Your task to perform on an android device: toggle pop-ups in chrome Image 0: 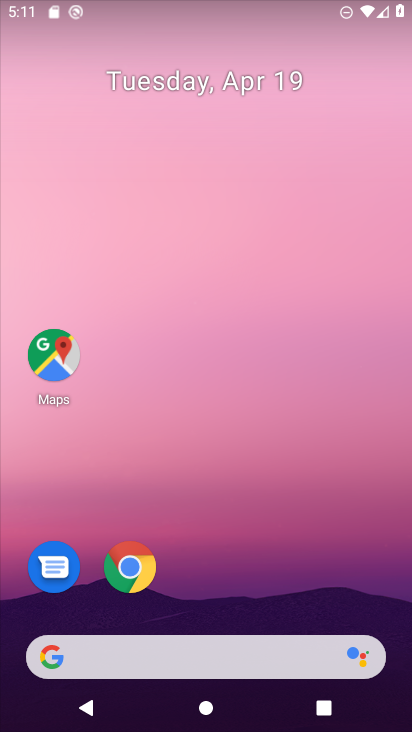
Step 0: drag from (323, 536) to (273, 60)
Your task to perform on an android device: toggle pop-ups in chrome Image 1: 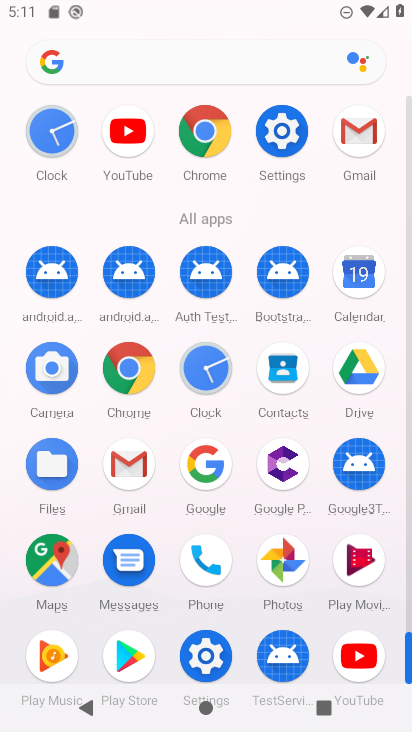
Step 1: click (206, 128)
Your task to perform on an android device: toggle pop-ups in chrome Image 2: 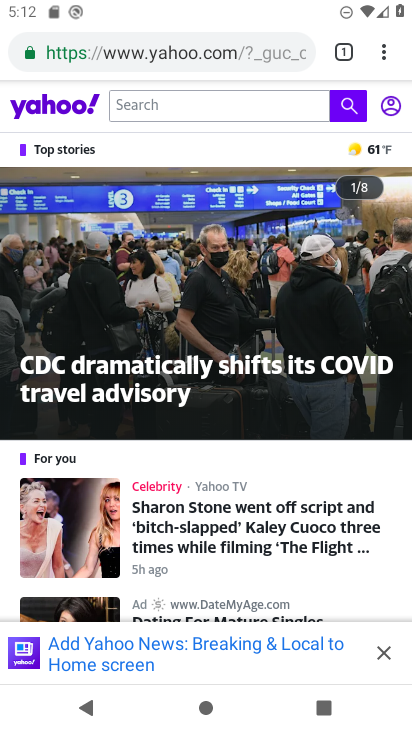
Step 2: drag from (380, 55) to (219, 616)
Your task to perform on an android device: toggle pop-ups in chrome Image 3: 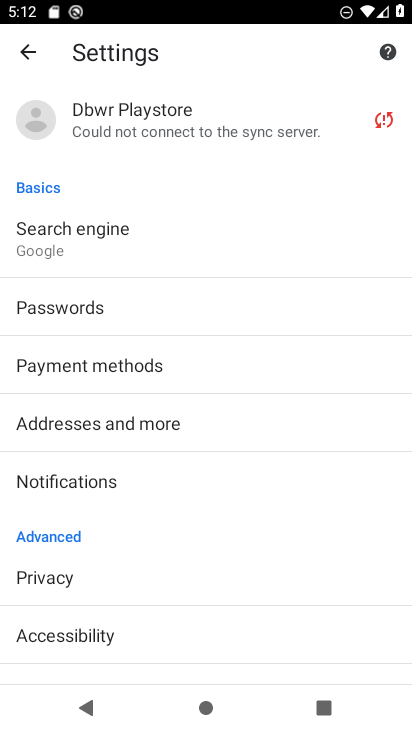
Step 3: drag from (247, 499) to (247, 287)
Your task to perform on an android device: toggle pop-ups in chrome Image 4: 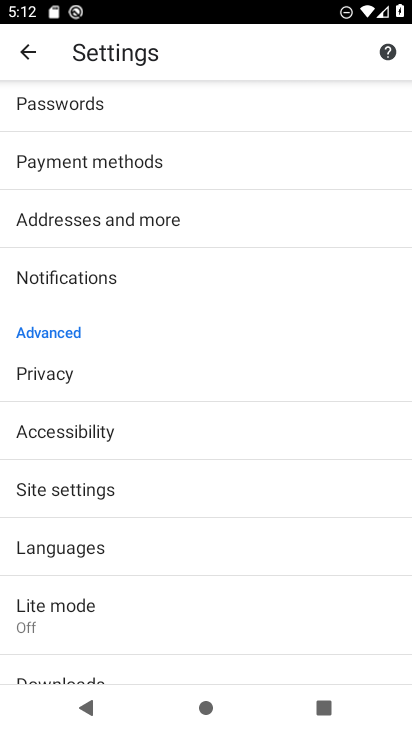
Step 4: click (96, 483)
Your task to perform on an android device: toggle pop-ups in chrome Image 5: 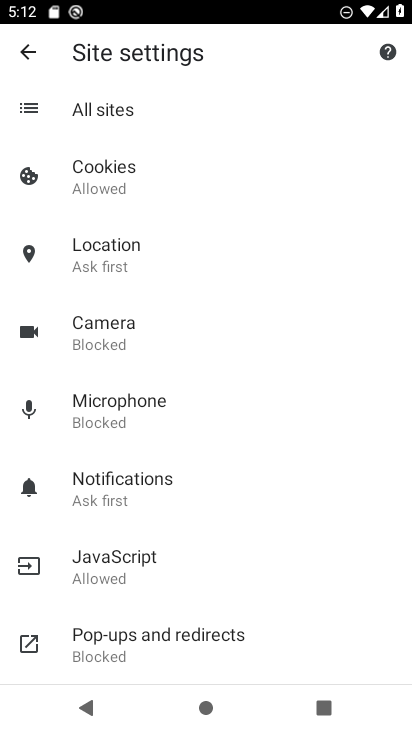
Step 5: drag from (220, 337) to (203, 138)
Your task to perform on an android device: toggle pop-ups in chrome Image 6: 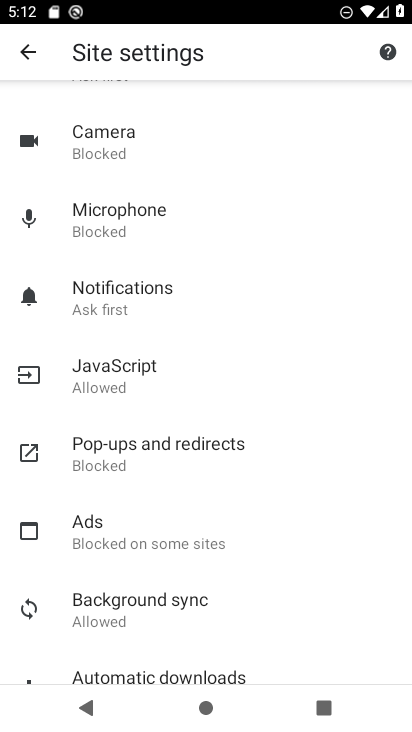
Step 6: click (191, 452)
Your task to perform on an android device: toggle pop-ups in chrome Image 7: 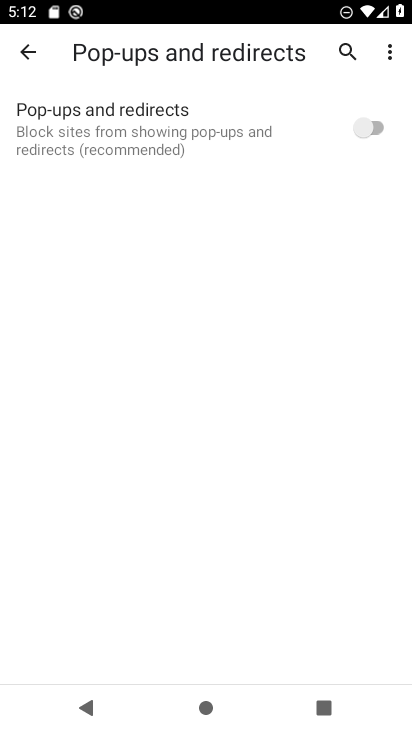
Step 7: click (367, 122)
Your task to perform on an android device: toggle pop-ups in chrome Image 8: 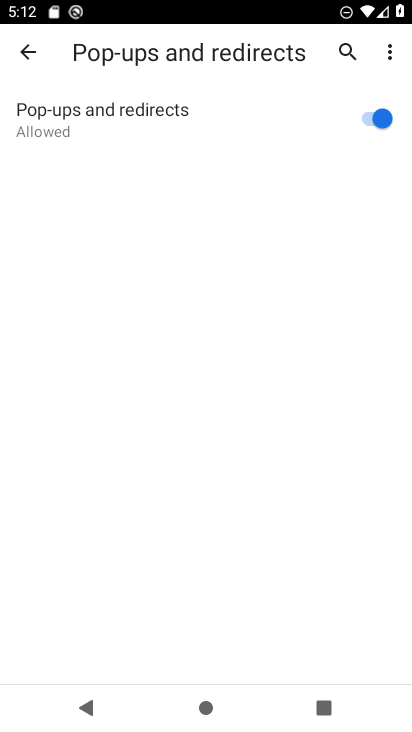
Step 8: task complete